Your task to perform on an android device: turn vacation reply on in the gmail app Image 0: 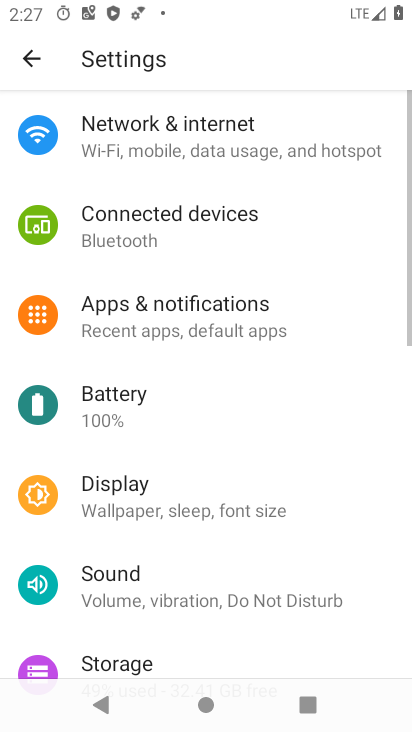
Step 0: press home button
Your task to perform on an android device: turn vacation reply on in the gmail app Image 1: 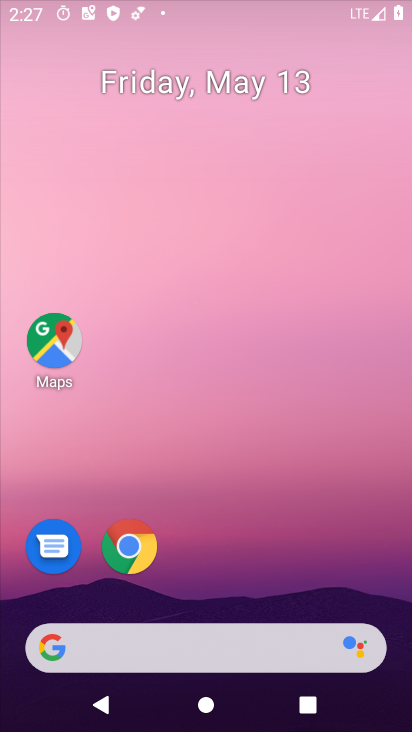
Step 1: drag from (298, 626) to (289, 189)
Your task to perform on an android device: turn vacation reply on in the gmail app Image 2: 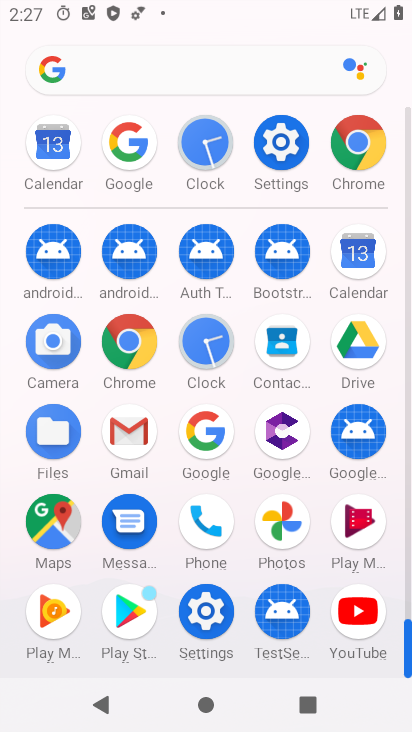
Step 2: click (145, 426)
Your task to perform on an android device: turn vacation reply on in the gmail app Image 3: 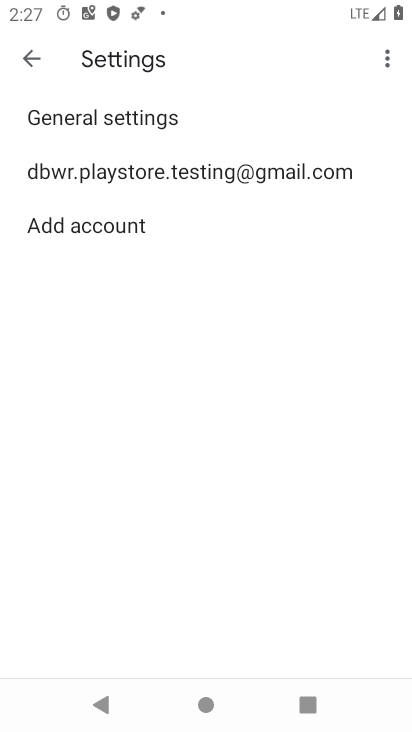
Step 3: click (168, 169)
Your task to perform on an android device: turn vacation reply on in the gmail app Image 4: 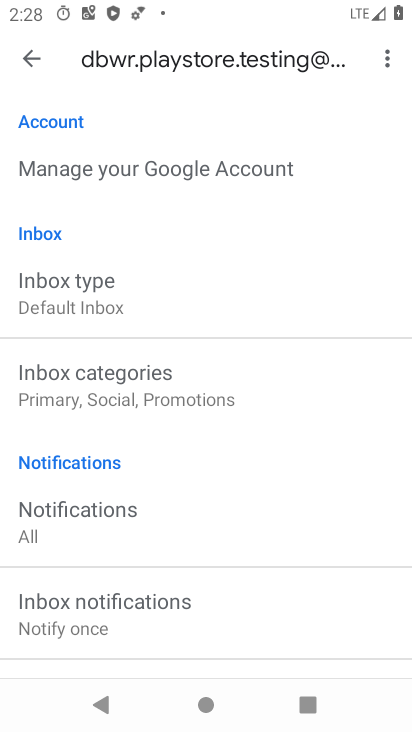
Step 4: drag from (102, 381) to (109, 126)
Your task to perform on an android device: turn vacation reply on in the gmail app Image 5: 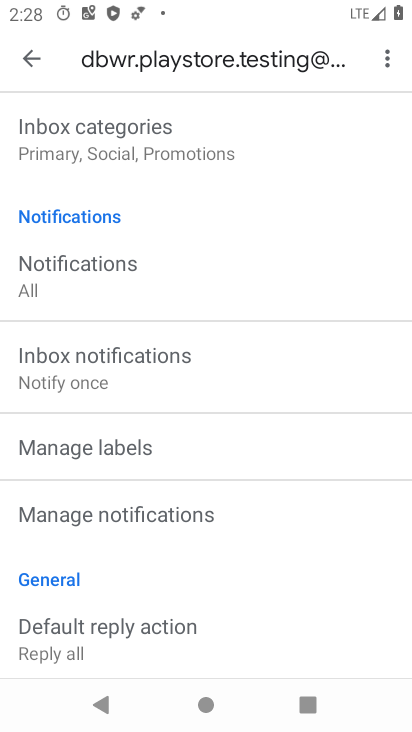
Step 5: drag from (158, 550) to (230, 253)
Your task to perform on an android device: turn vacation reply on in the gmail app Image 6: 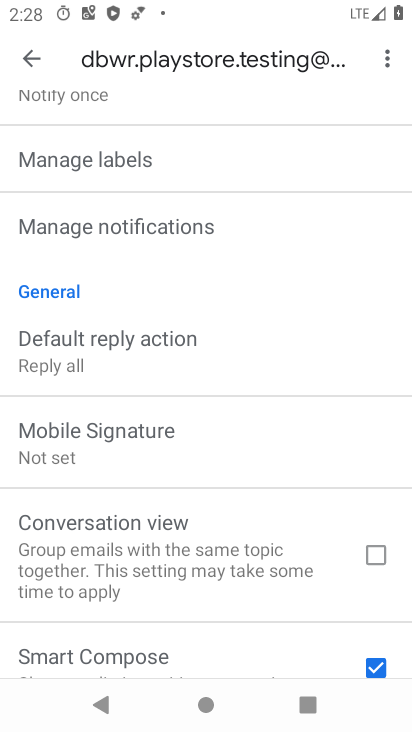
Step 6: drag from (206, 422) to (262, 43)
Your task to perform on an android device: turn vacation reply on in the gmail app Image 7: 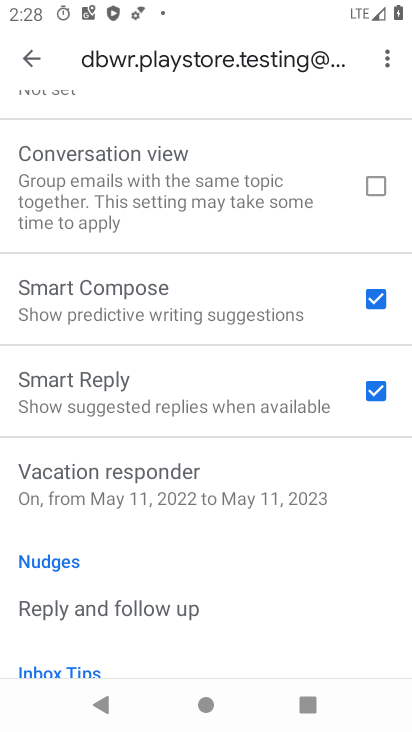
Step 7: click (168, 480)
Your task to perform on an android device: turn vacation reply on in the gmail app Image 8: 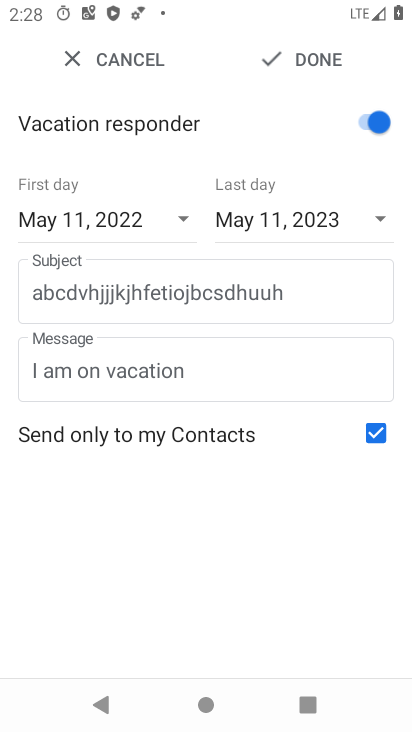
Step 8: task complete